Your task to perform on an android device: change keyboard looks Image 0: 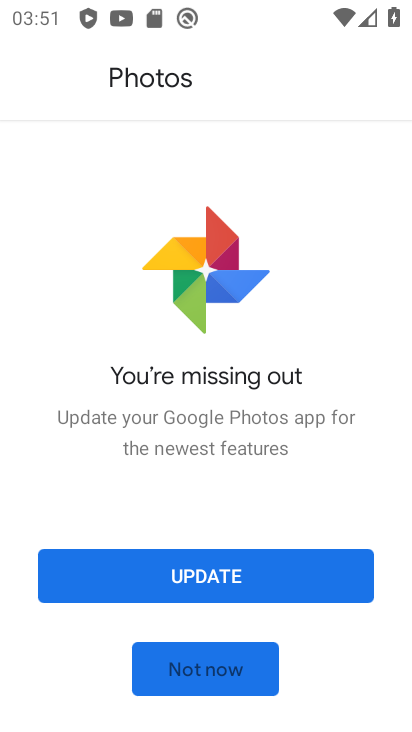
Step 0: press home button
Your task to perform on an android device: change keyboard looks Image 1: 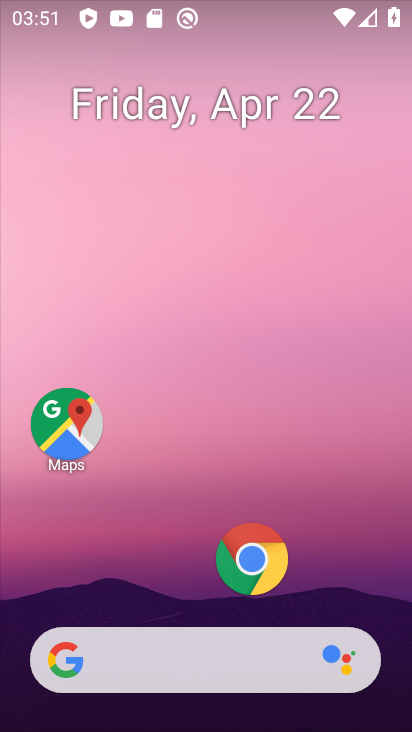
Step 1: drag from (145, 577) to (225, 3)
Your task to perform on an android device: change keyboard looks Image 2: 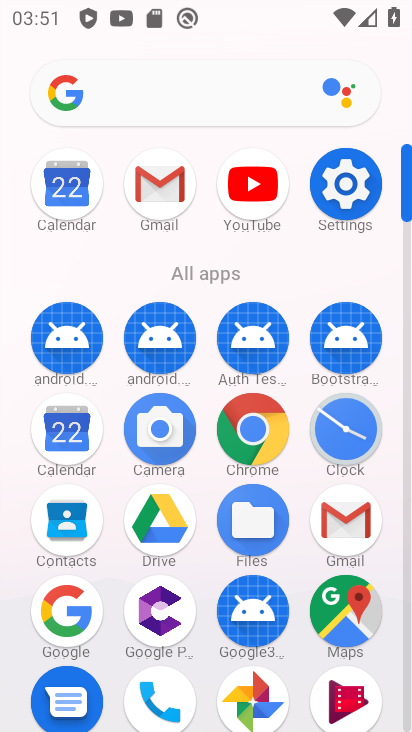
Step 2: click (340, 208)
Your task to perform on an android device: change keyboard looks Image 3: 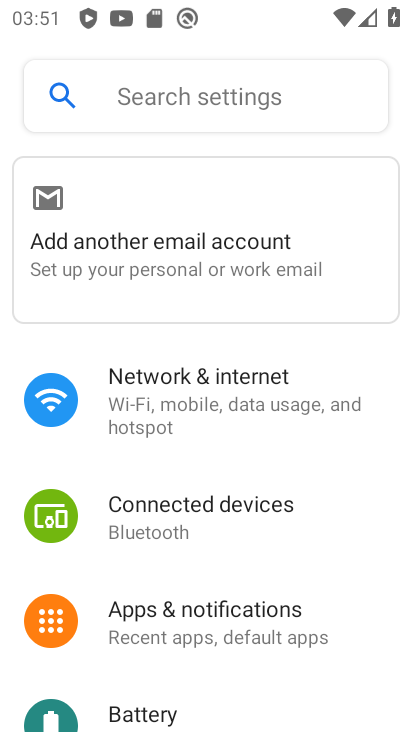
Step 3: drag from (216, 562) to (233, 214)
Your task to perform on an android device: change keyboard looks Image 4: 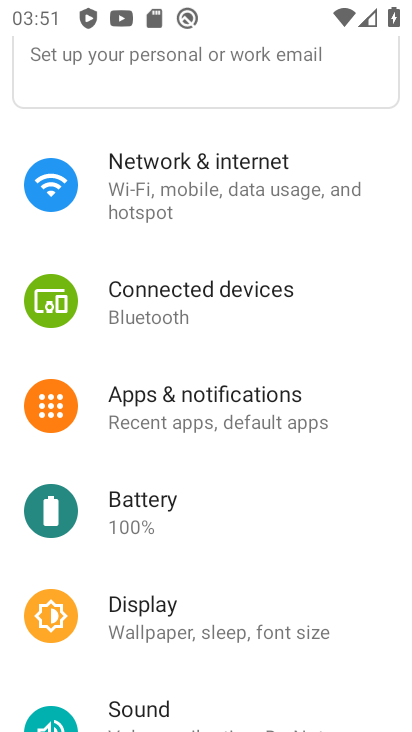
Step 4: drag from (177, 556) to (316, 25)
Your task to perform on an android device: change keyboard looks Image 5: 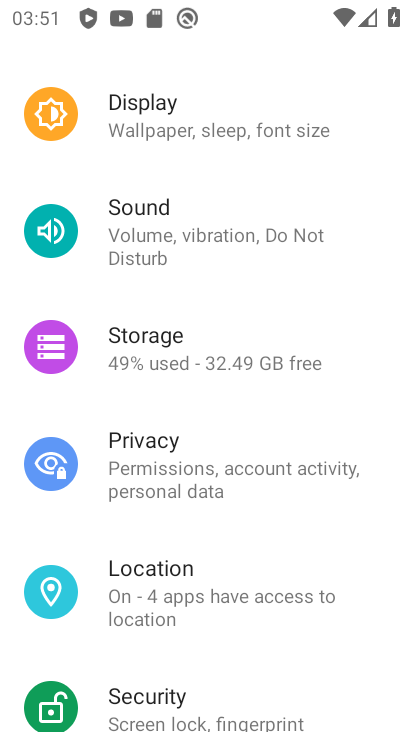
Step 5: drag from (203, 579) to (323, 105)
Your task to perform on an android device: change keyboard looks Image 6: 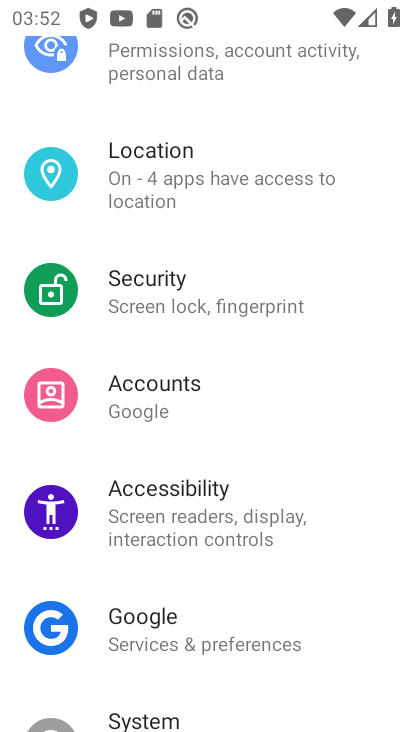
Step 6: drag from (191, 639) to (326, 190)
Your task to perform on an android device: change keyboard looks Image 7: 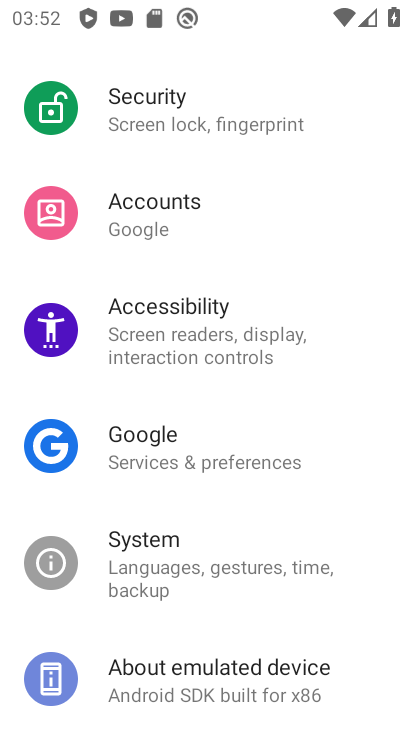
Step 7: click (171, 577)
Your task to perform on an android device: change keyboard looks Image 8: 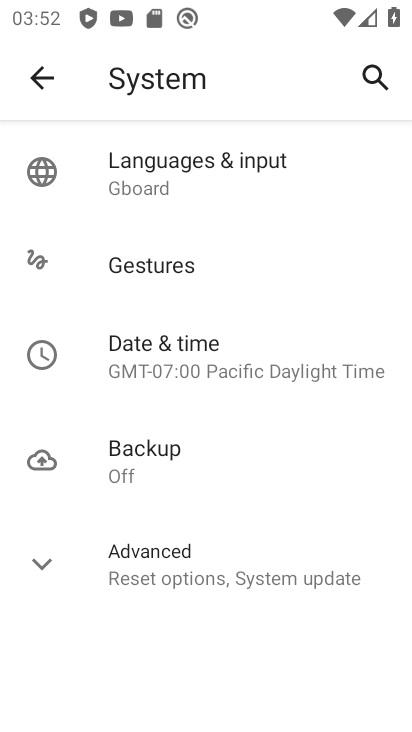
Step 8: click (161, 192)
Your task to perform on an android device: change keyboard looks Image 9: 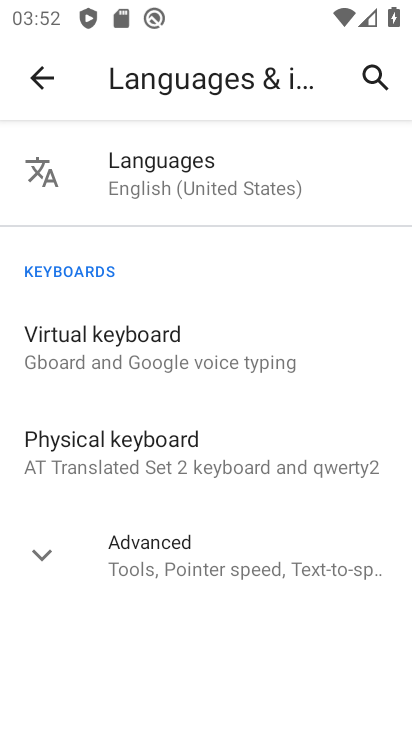
Step 9: click (164, 369)
Your task to perform on an android device: change keyboard looks Image 10: 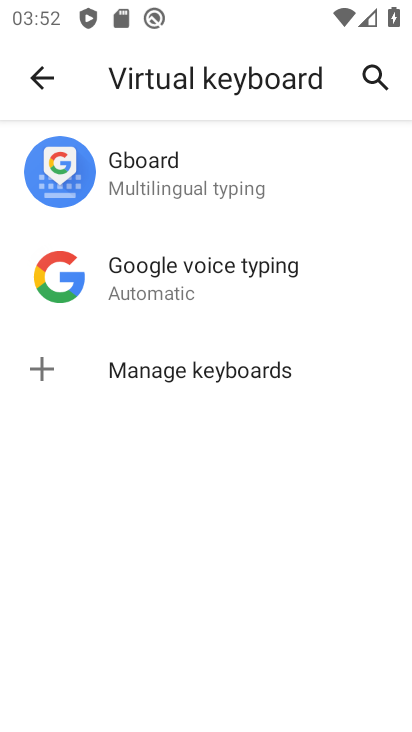
Step 10: click (170, 193)
Your task to perform on an android device: change keyboard looks Image 11: 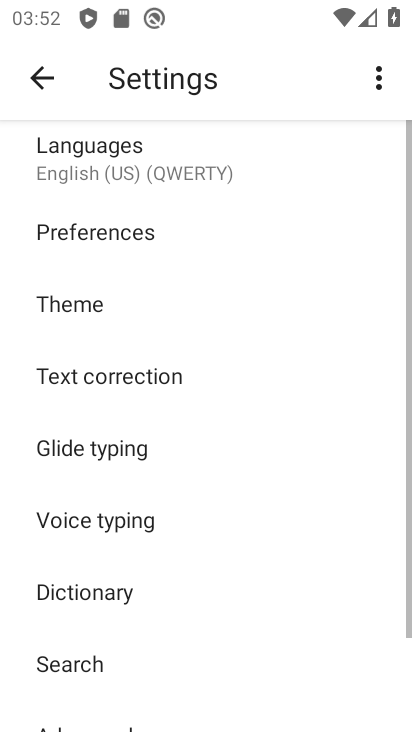
Step 11: click (96, 309)
Your task to perform on an android device: change keyboard looks Image 12: 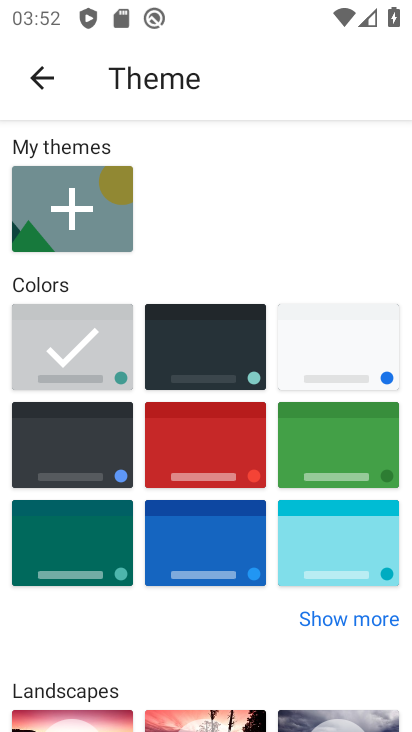
Step 12: click (188, 359)
Your task to perform on an android device: change keyboard looks Image 13: 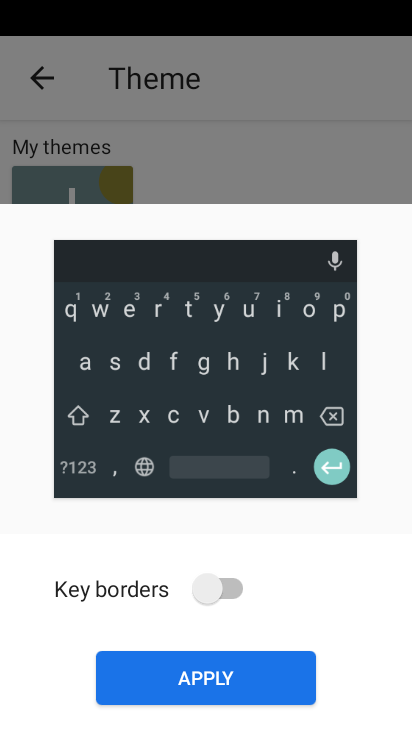
Step 13: click (217, 692)
Your task to perform on an android device: change keyboard looks Image 14: 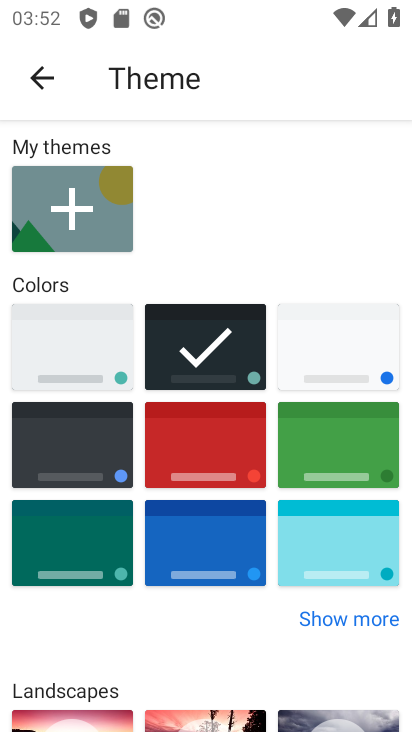
Step 14: task complete